Your task to perform on an android device: clear history in the chrome app Image 0: 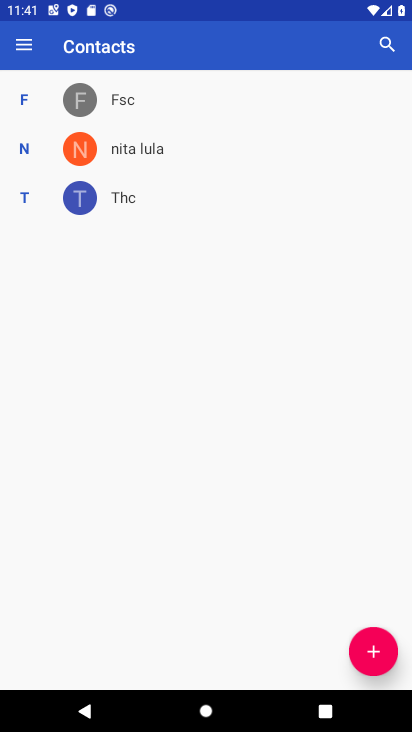
Step 0: press home button
Your task to perform on an android device: clear history in the chrome app Image 1: 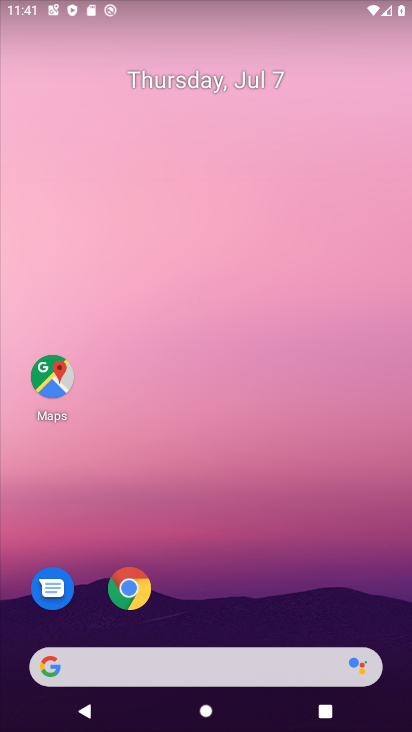
Step 1: click (130, 588)
Your task to perform on an android device: clear history in the chrome app Image 2: 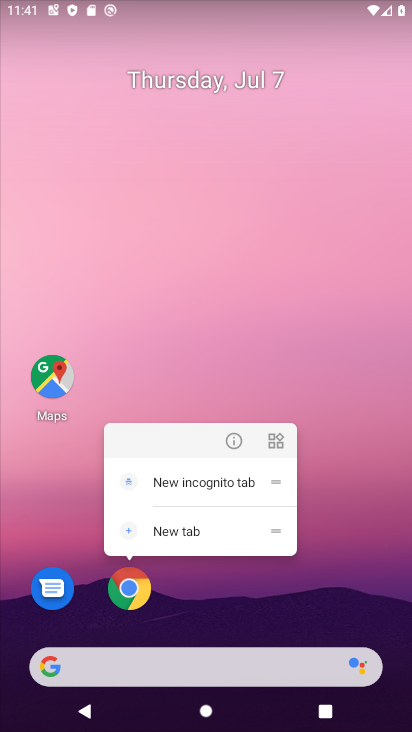
Step 2: click (134, 584)
Your task to perform on an android device: clear history in the chrome app Image 3: 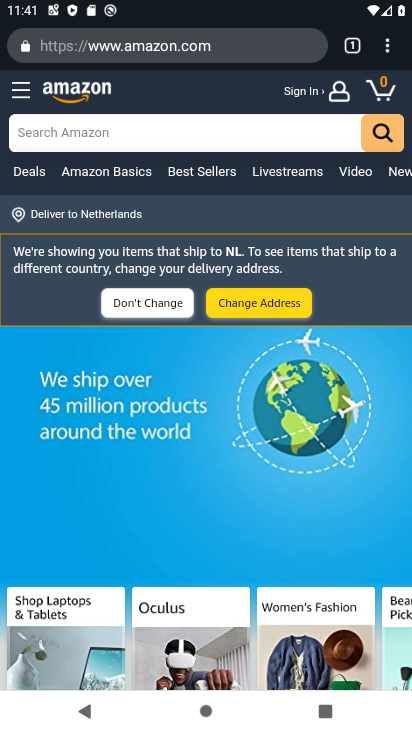
Step 3: click (382, 51)
Your task to perform on an android device: clear history in the chrome app Image 4: 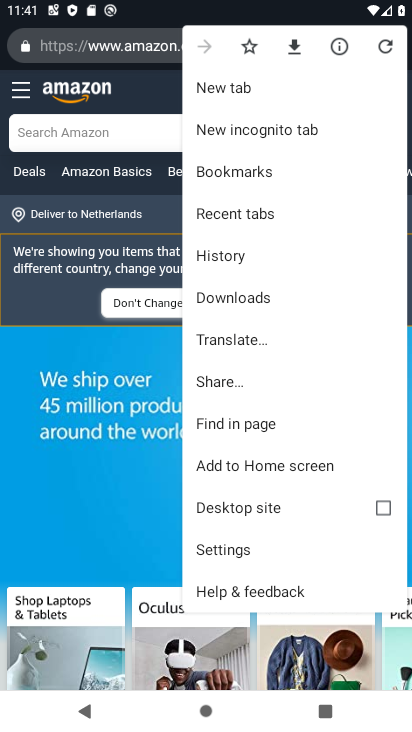
Step 4: click (235, 261)
Your task to perform on an android device: clear history in the chrome app Image 5: 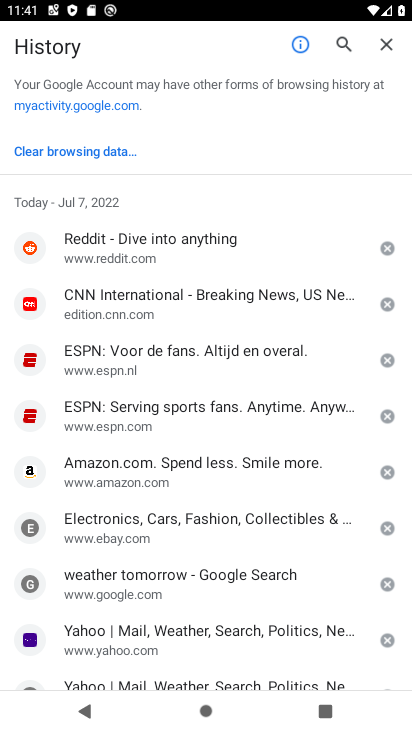
Step 5: click (75, 155)
Your task to perform on an android device: clear history in the chrome app Image 6: 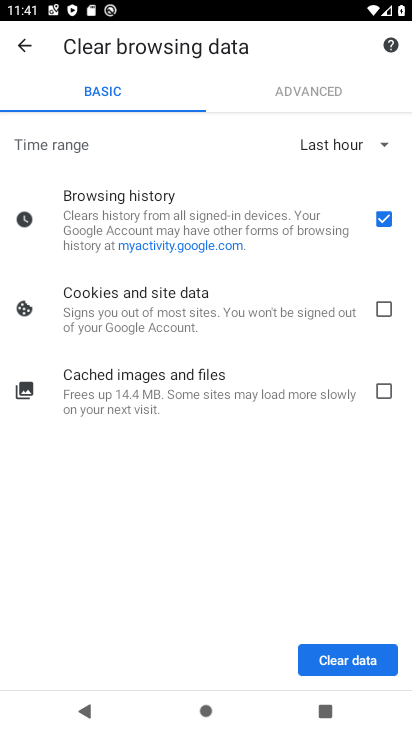
Step 6: click (353, 658)
Your task to perform on an android device: clear history in the chrome app Image 7: 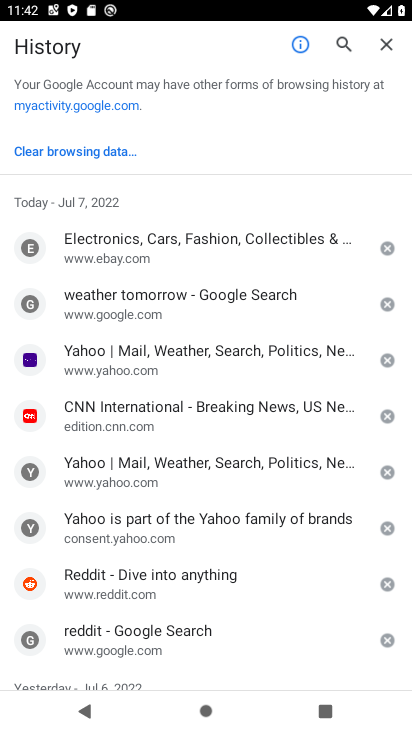
Step 7: task complete